Your task to perform on an android device: Clear all items from cart on costco.com. Image 0: 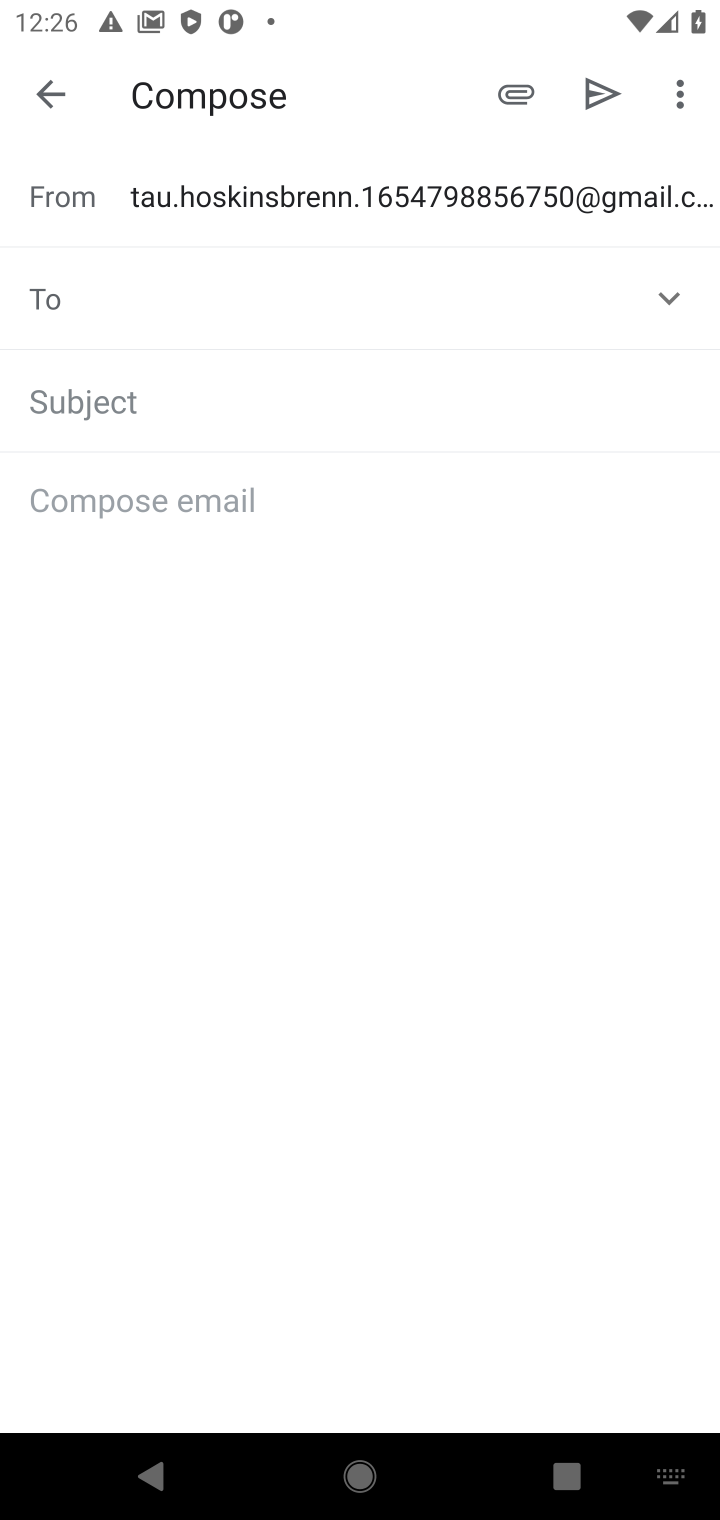
Step 0: press home button
Your task to perform on an android device: Clear all items from cart on costco.com. Image 1: 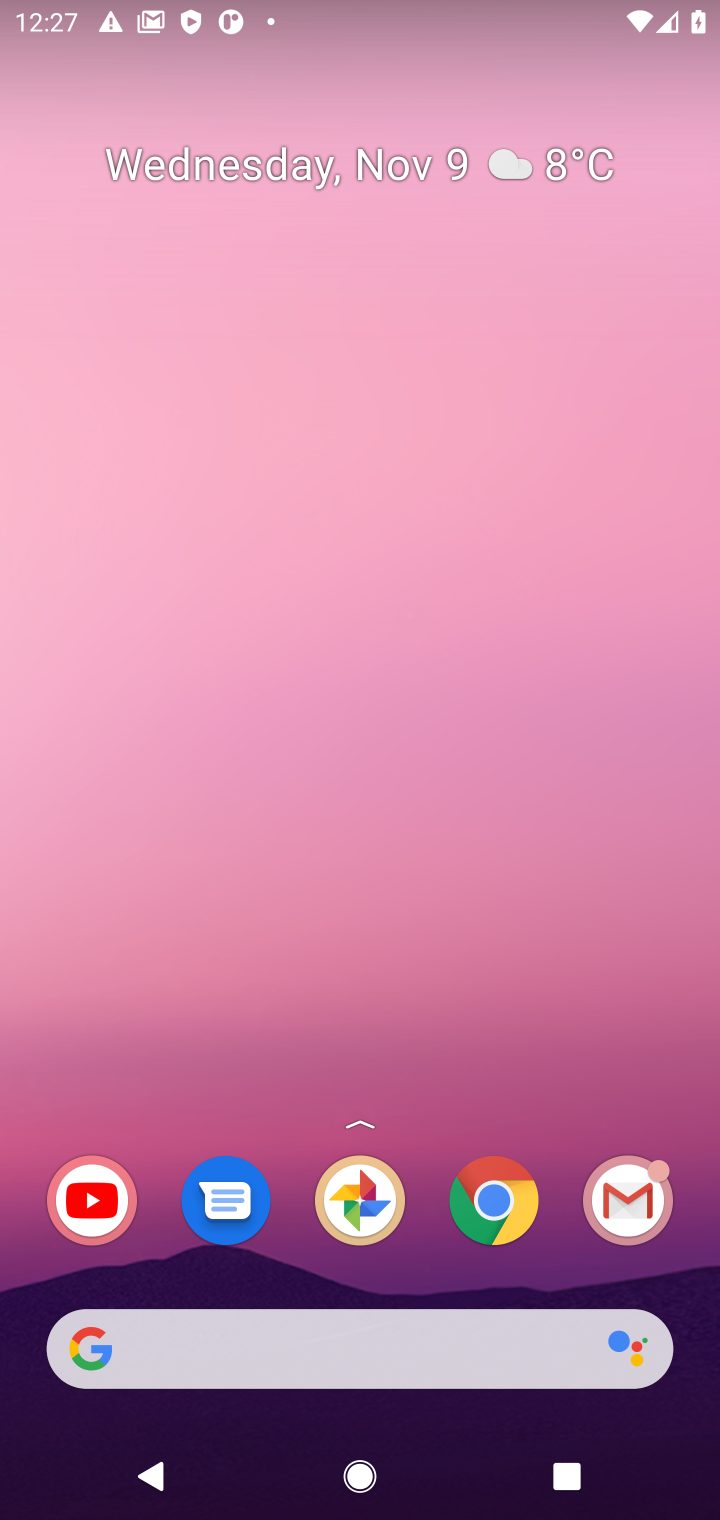
Step 1: click (455, 1330)
Your task to perform on an android device: Clear all items from cart on costco.com. Image 2: 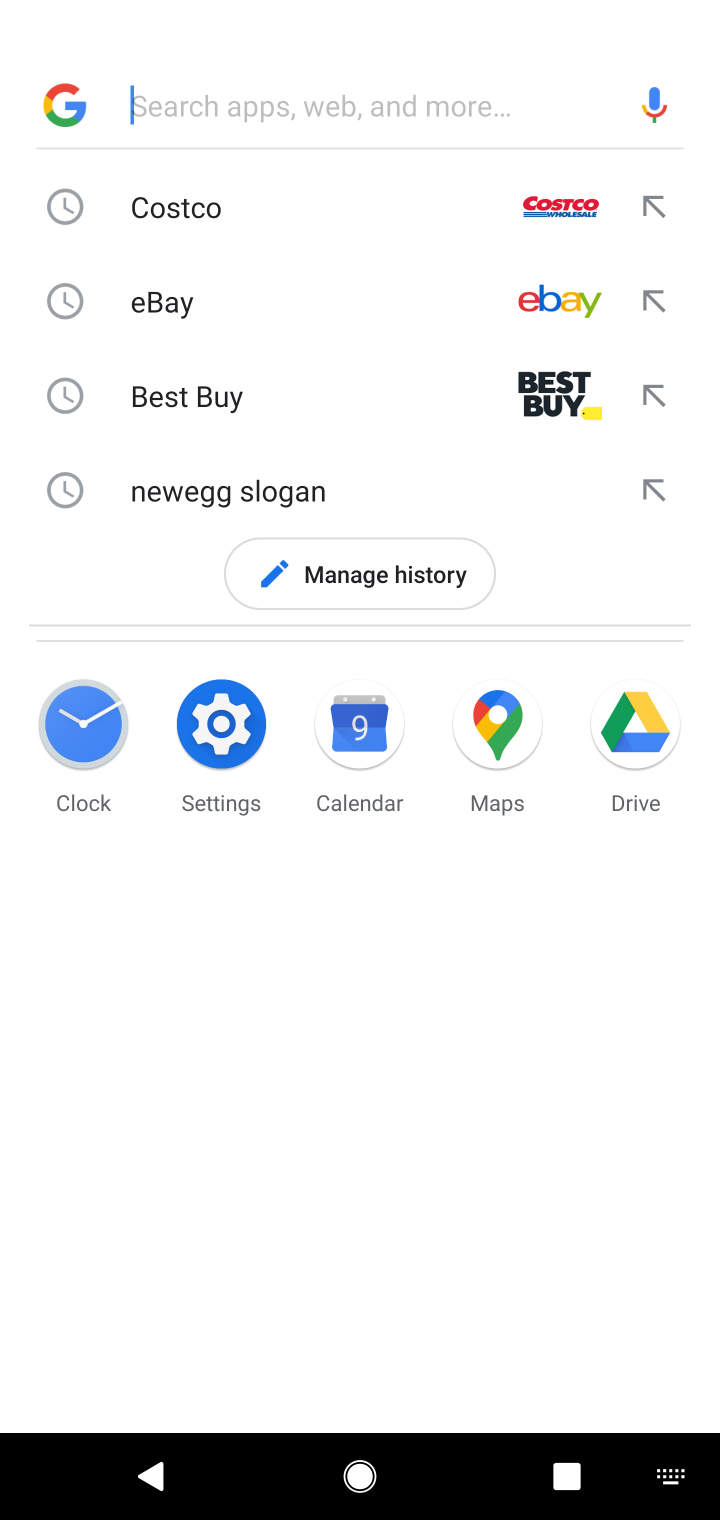
Step 2: type "costco"
Your task to perform on an android device: Clear all items from cart on costco.com. Image 3: 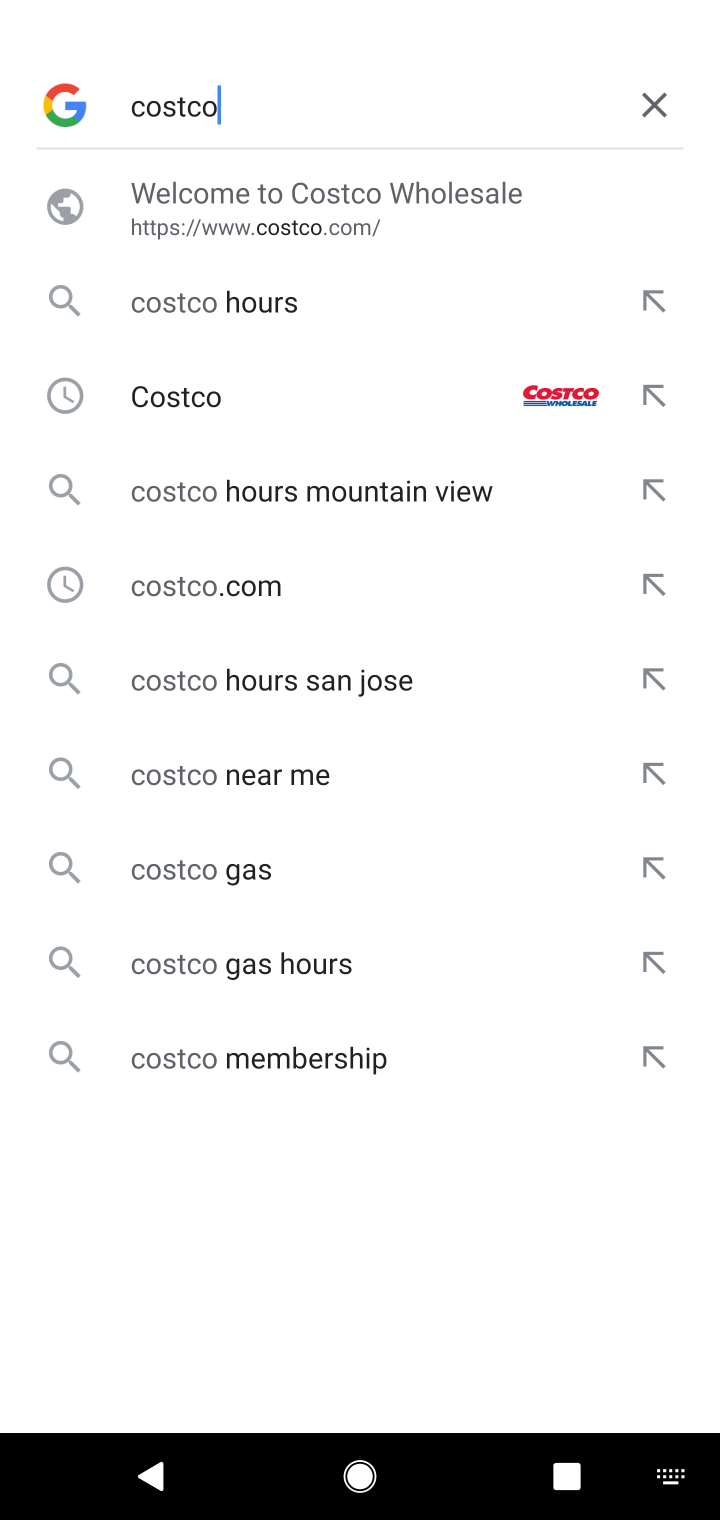
Step 3: click (422, 398)
Your task to perform on an android device: Clear all items from cart on costco.com. Image 4: 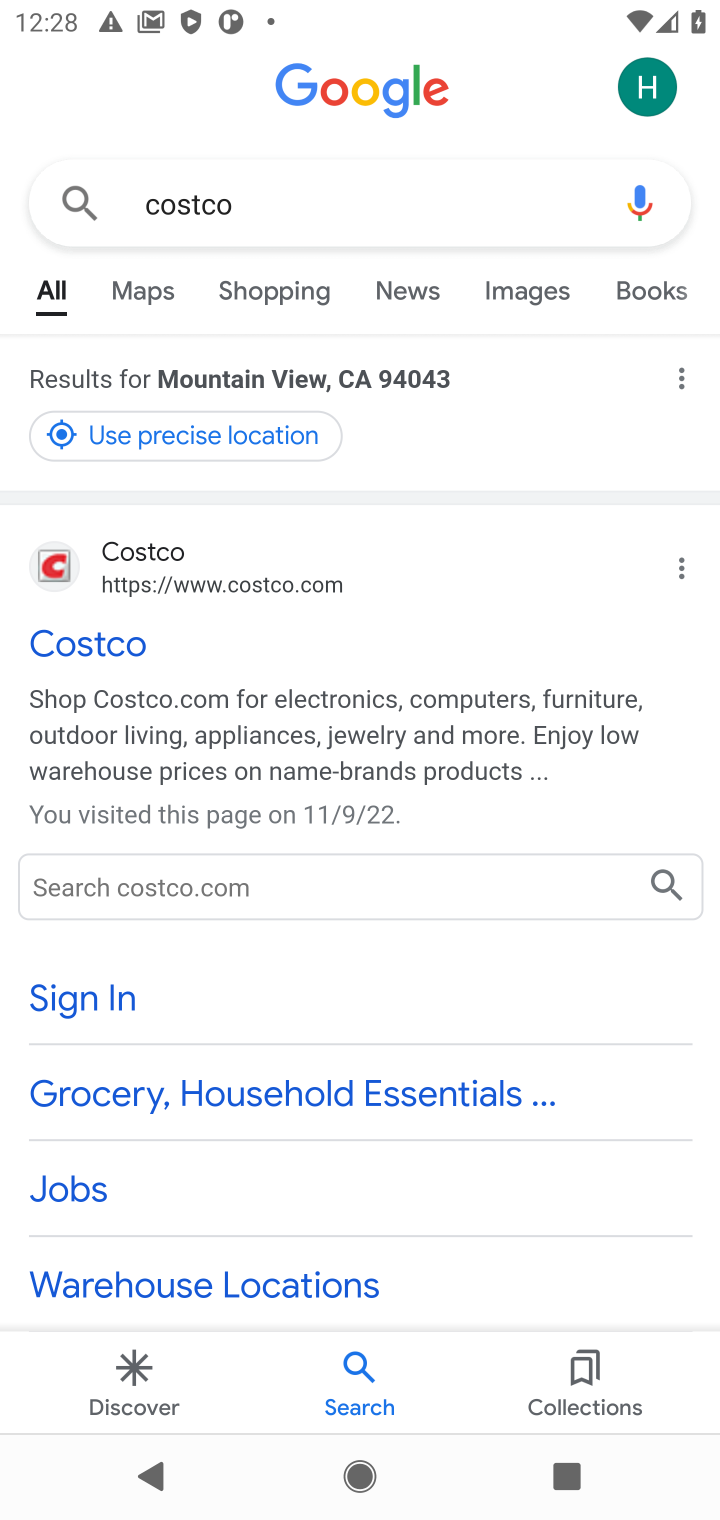
Step 4: click (45, 621)
Your task to perform on an android device: Clear all items from cart on costco.com. Image 5: 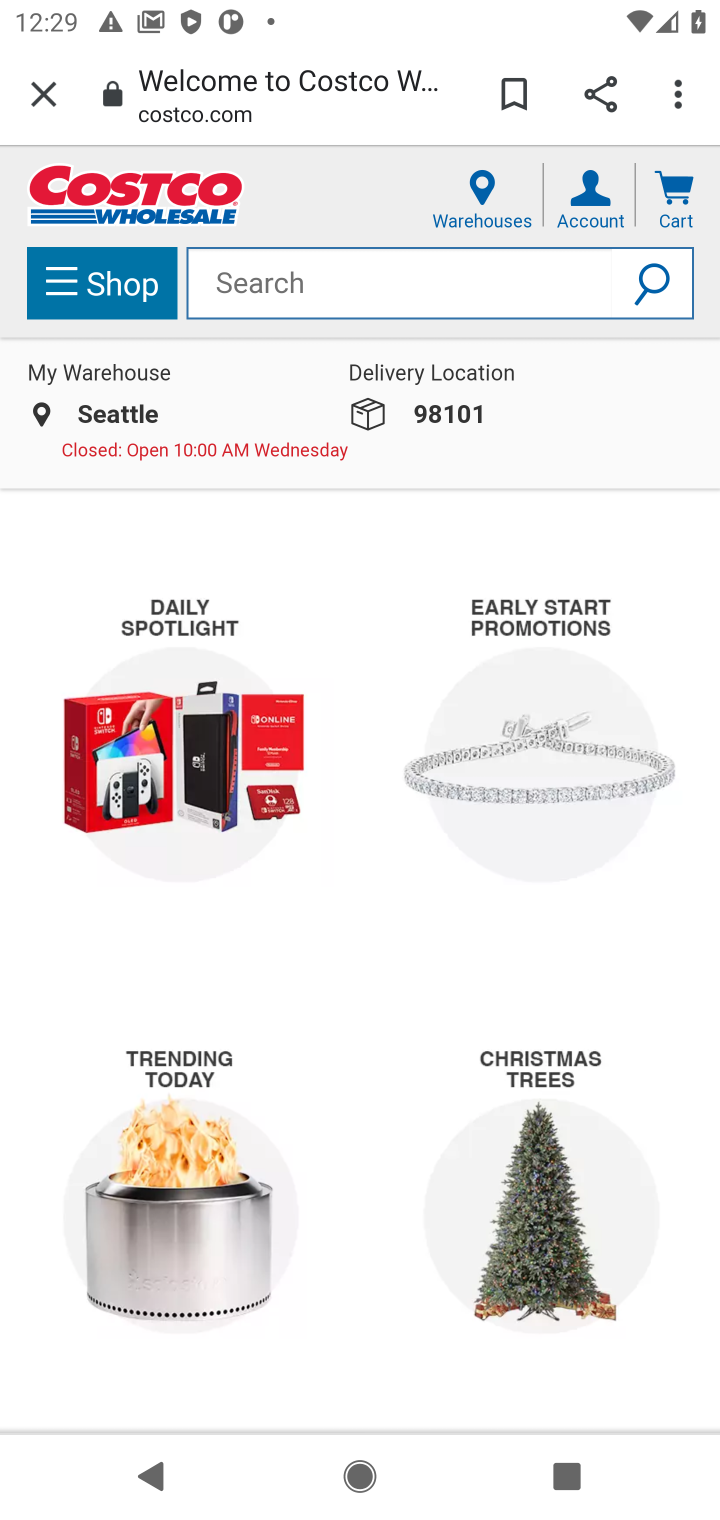
Step 5: task complete